Your task to perform on an android device: turn off data saver in the chrome app Image 0: 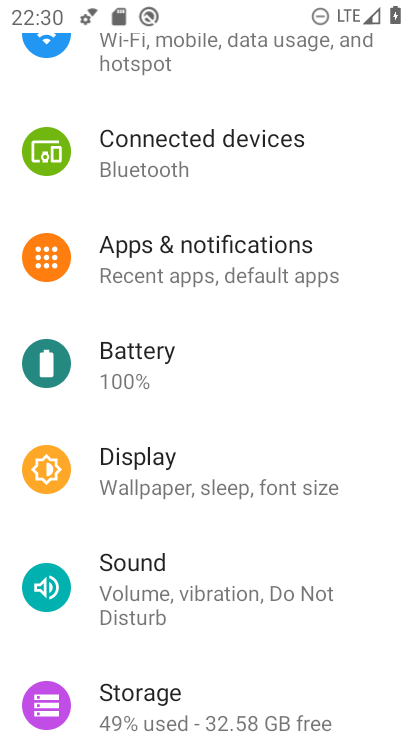
Step 0: drag from (331, 624) to (371, 208)
Your task to perform on an android device: turn off data saver in the chrome app Image 1: 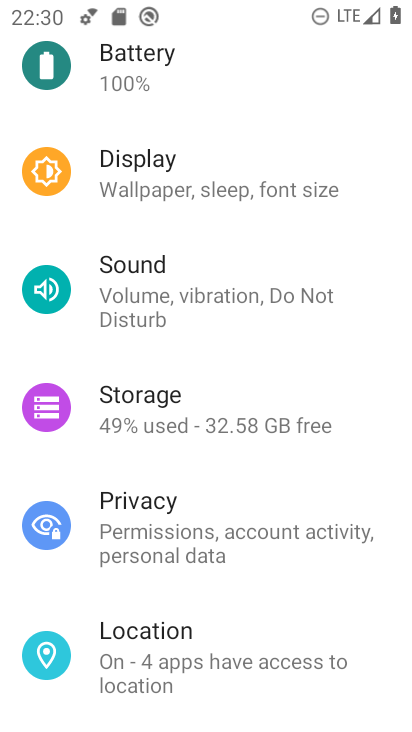
Step 1: press home button
Your task to perform on an android device: turn off data saver in the chrome app Image 2: 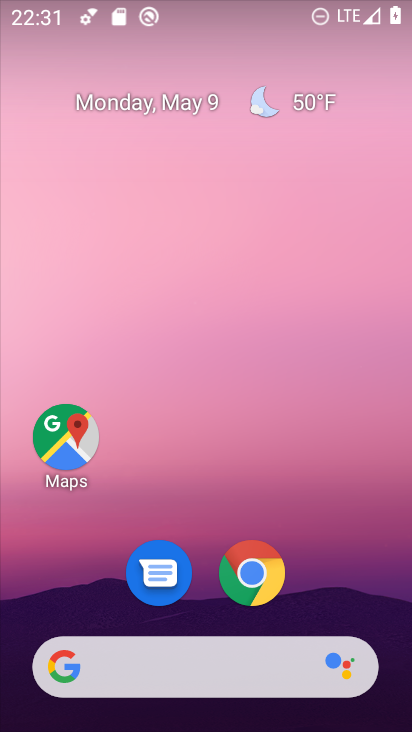
Step 2: drag from (374, 567) to (257, 191)
Your task to perform on an android device: turn off data saver in the chrome app Image 3: 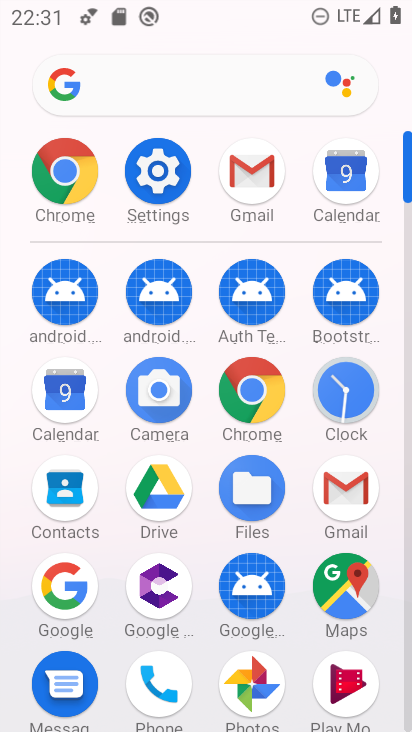
Step 3: click (261, 402)
Your task to perform on an android device: turn off data saver in the chrome app Image 4: 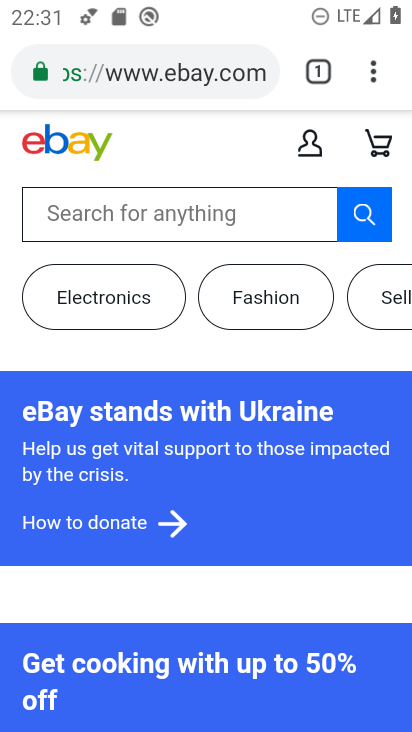
Step 4: drag from (381, 67) to (172, 564)
Your task to perform on an android device: turn off data saver in the chrome app Image 5: 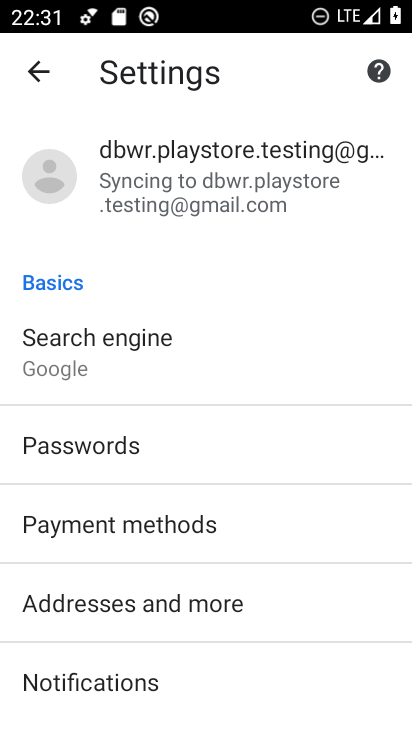
Step 5: drag from (274, 603) to (337, 41)
Your task to perform on an android device: turn off data saver in the chrome app Image 6: 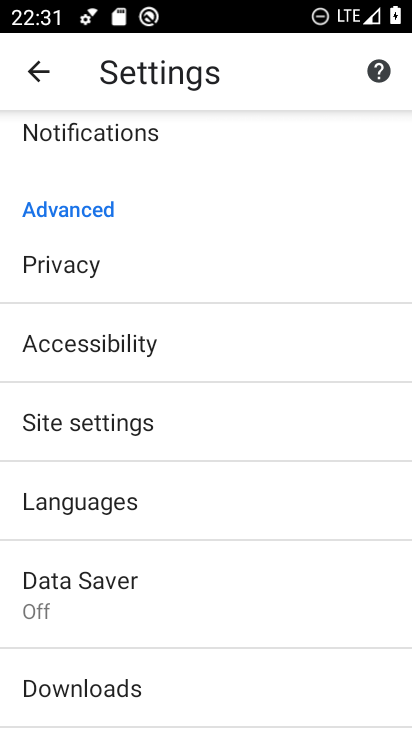
Step 6: click (112, 606)
Your task to perform on an android device: turn off data saver in the chrome app Image 7: 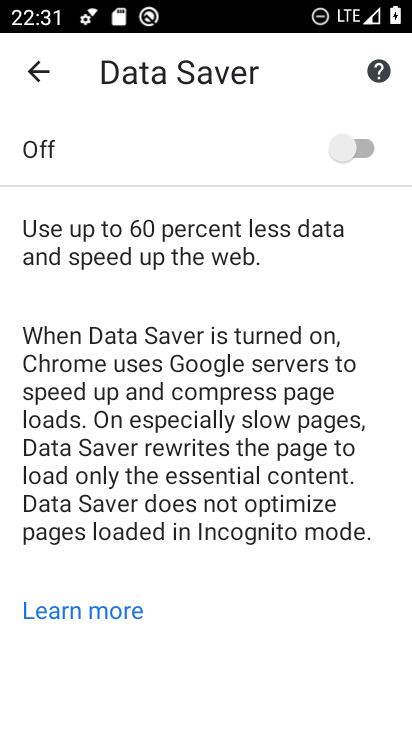
Step 7: task complete